Your task to perform on an android device: toggle sleep mode Image 0: 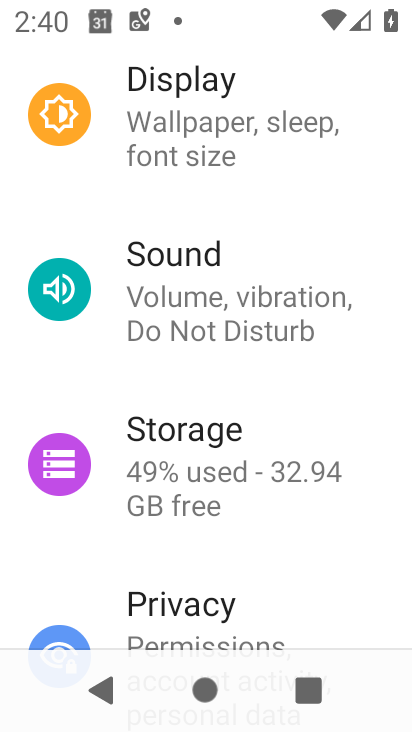
Step 0: drag from (247, 545) to (247, 158)
Your task to perform on an android device: toggle sleep mode Image 1: 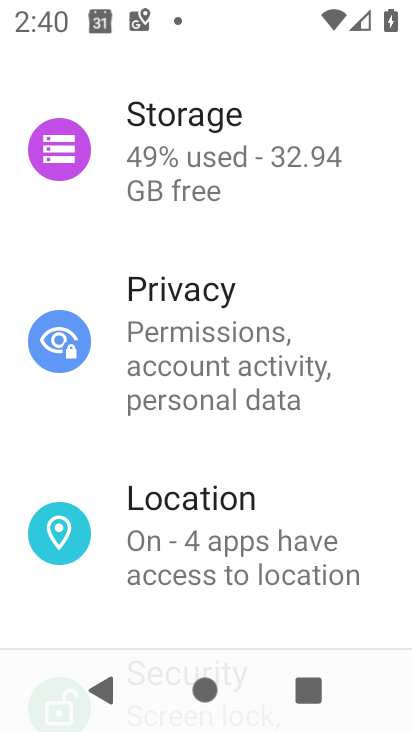
Step 1: drag from (260, 283) to (237, 560)
Your task to perform on an android device: toggle sleep mode Image 2: 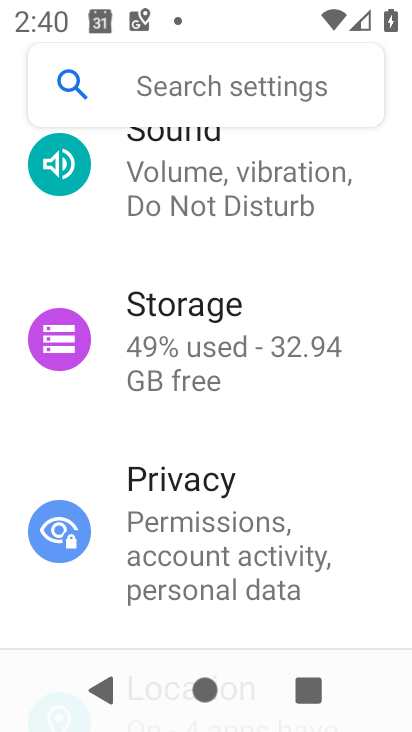
Step 2: drag from (263, 286) to (255, 578)
Your task to perform on an android device: toggle sleep mode Image 3: 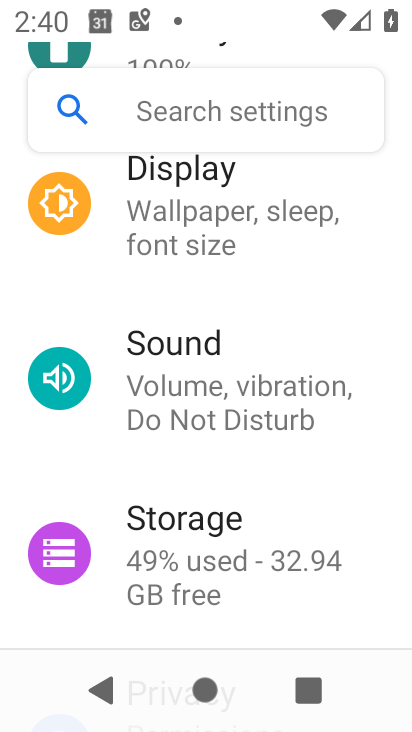
Step 3: click (234, 253)
Your task to perform on an android device: toggle sleep mode Image 4: 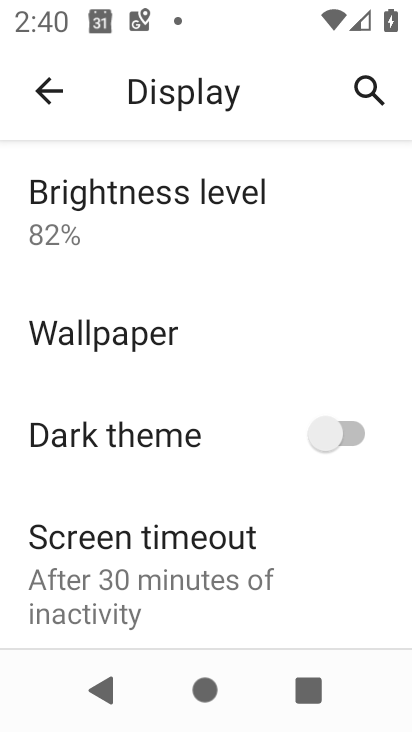
Step 4: drag from (230, 565) to (252, 260)
Your task to perform on an android device: toggle sleep mode Image 5: 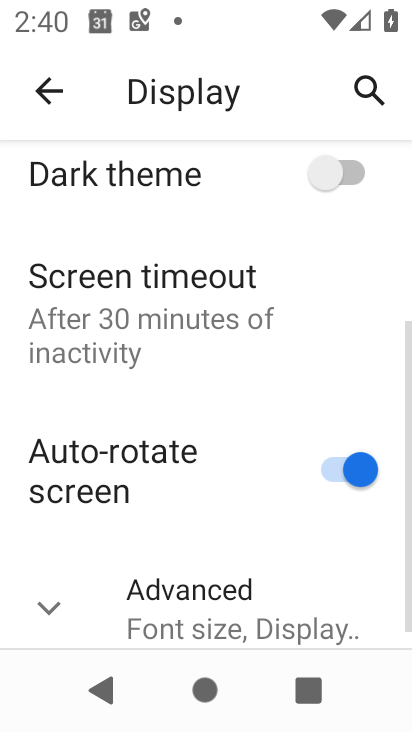
Step 5: drag from (223, 557) to (239, 263)
Your task to perform on an android device: toggle sleep mode Image 6: 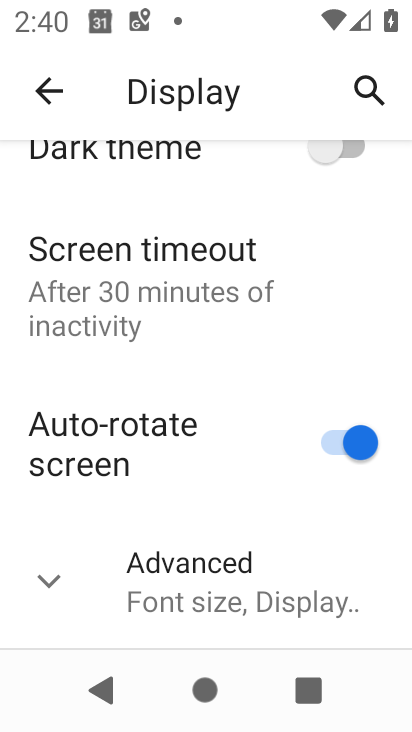
Step 6: click (66, 581)
Your task to perform on an android device: toggle sleep mode Image 7: 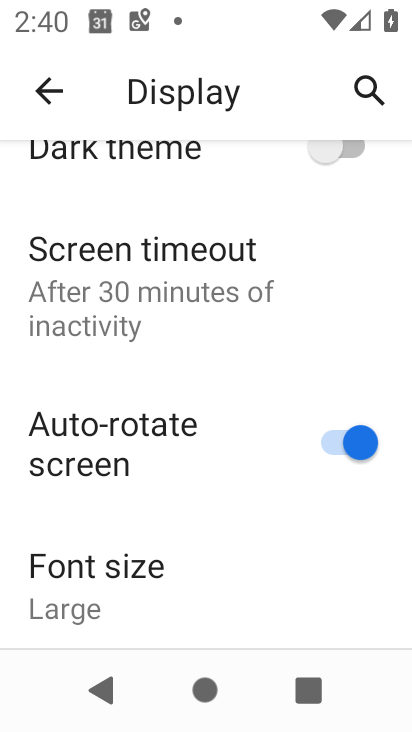
Step 7: task complete